Your task to perform on an android device: open a bookmark in the chrome app Image 0: 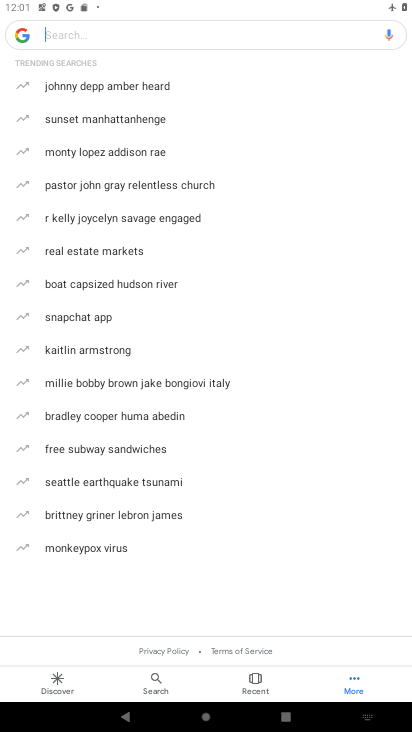
Step 0: press home button
Your task to perform on an android device: open a bookmark in the chrome app Image 1: 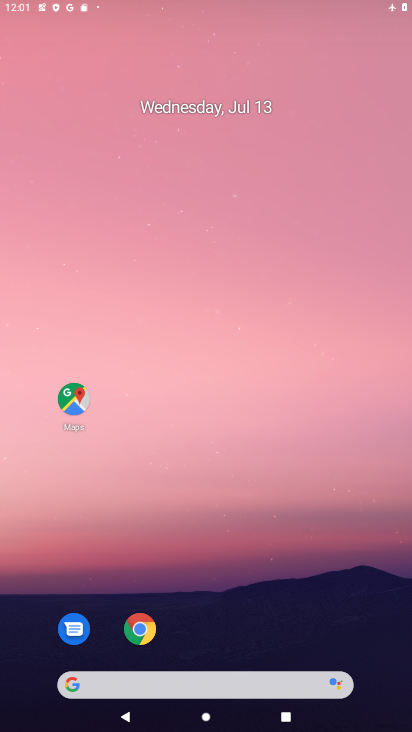
Step 1: drag from (201, 593) to (201, 261)
Your task to perform on an android device: open a bookmark in the chrome app Image 2: 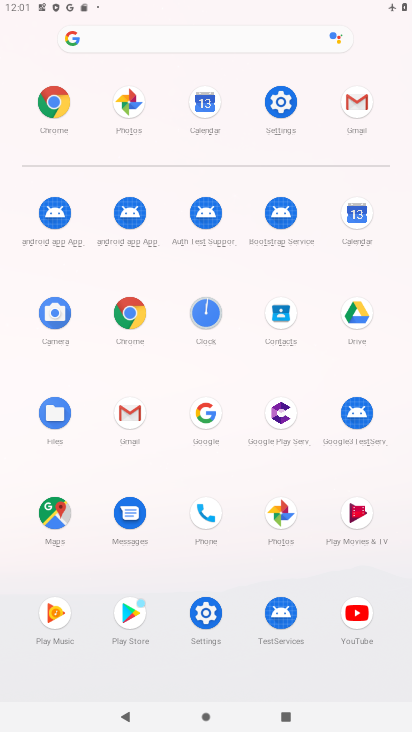
Step 2: click (56, 102)
Your task to perform on an android device: open a bookmark in the chrome app Image 3: 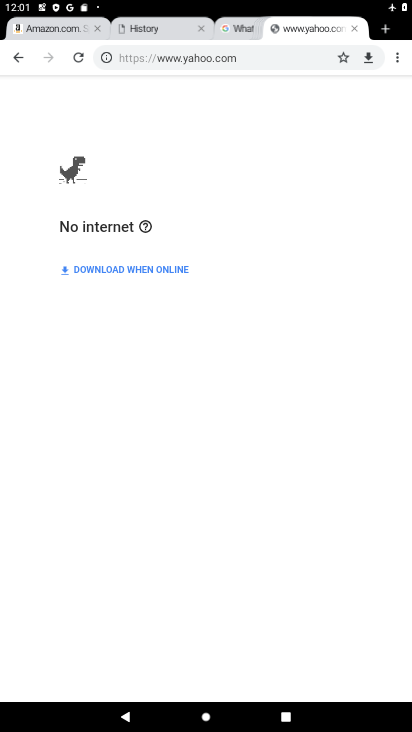
Step 3: click (398, 53)
Your task to perform on an android device: open a bookmark in the chrome app Image 4: 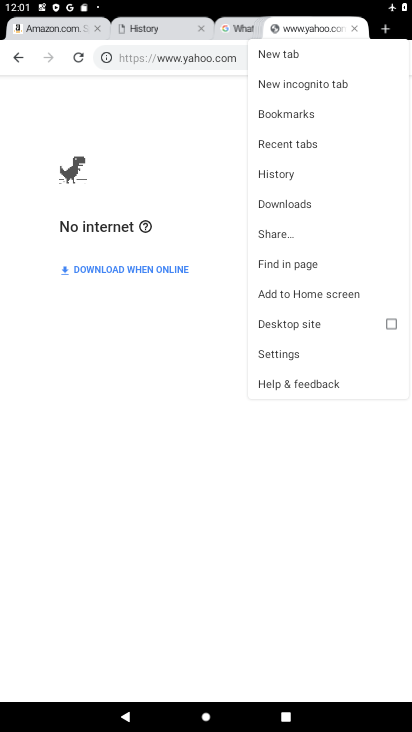
Step 4: click (296, 105)
Your task to perform on an android device: open a bookmark in the chrome app Image 5: 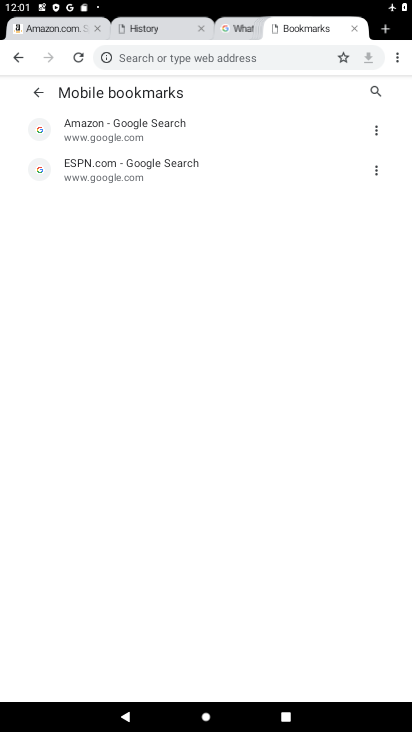
Step 5: task complete